Your task to perform on an android device: Open Chrome and go to the settings page Image 0: 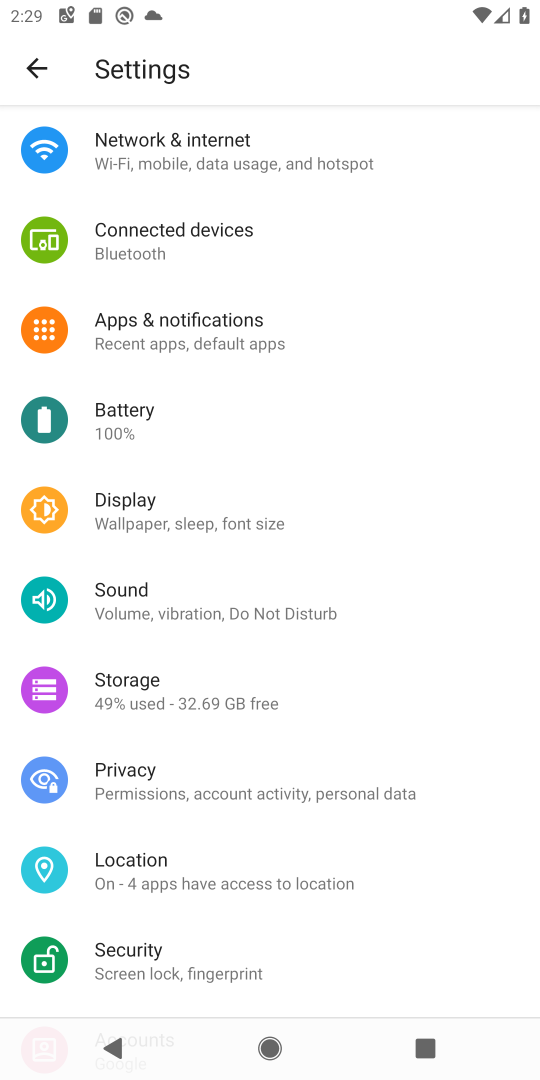
Step 0: press home button
Your task to perform on an android device: Open Chrome and go to the settings page Image 1: 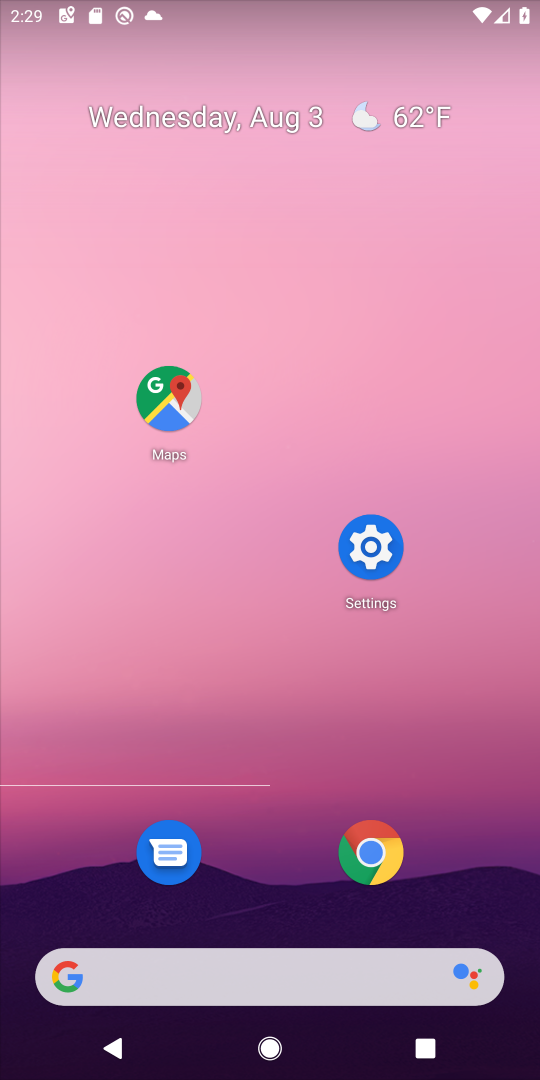
Step 1: click (365, 548)
Your task to perform on an android device: Open Chrome and go to the settings page Image 2: 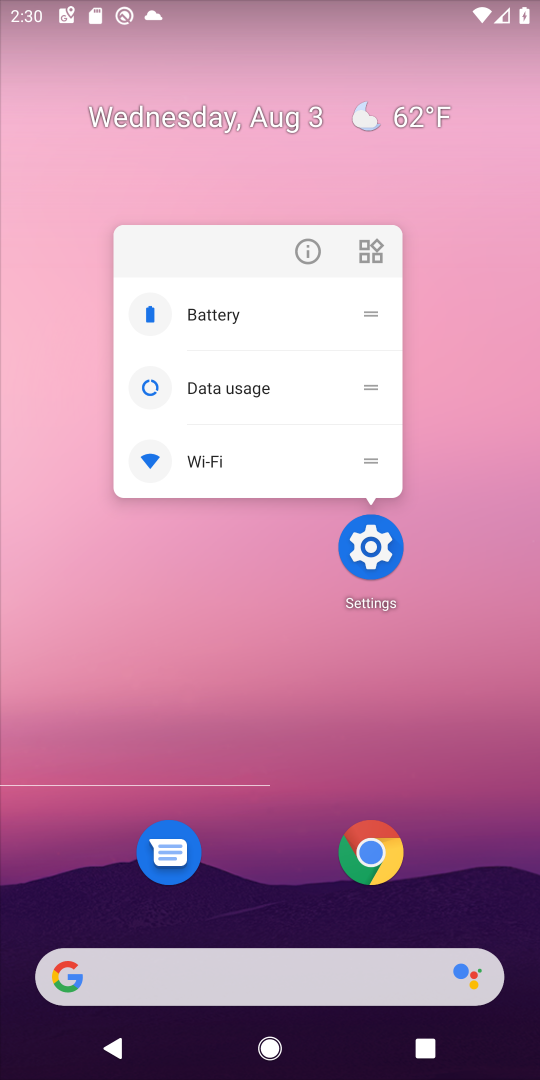
Step 2: click (365, 548)
Your task to perform on an android device: Open Chrome and go to the settings page Image 3: 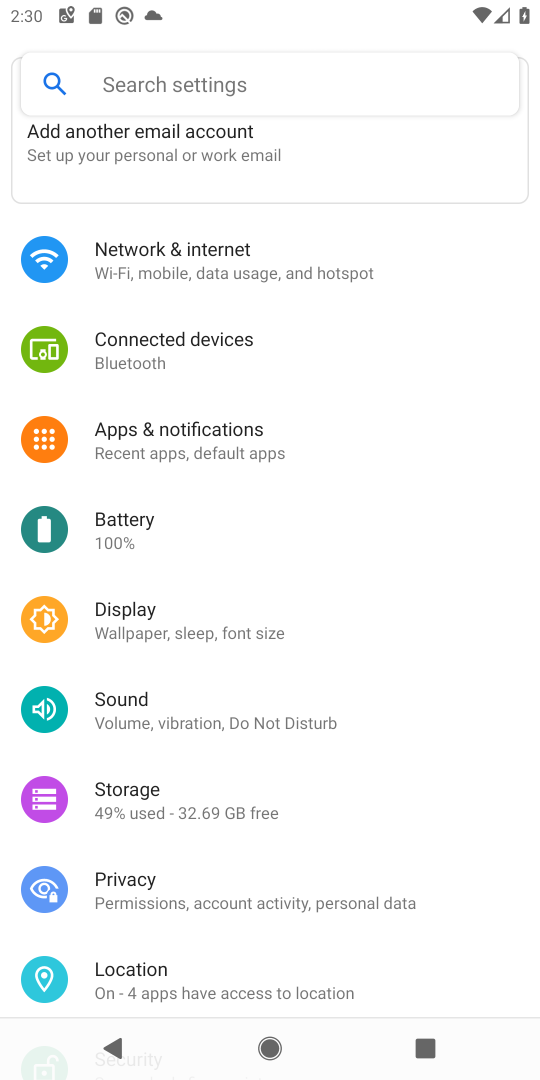
Step 3: press home button
Your task to perform on an android device: Open Chrome and go to the settings page Image 4: 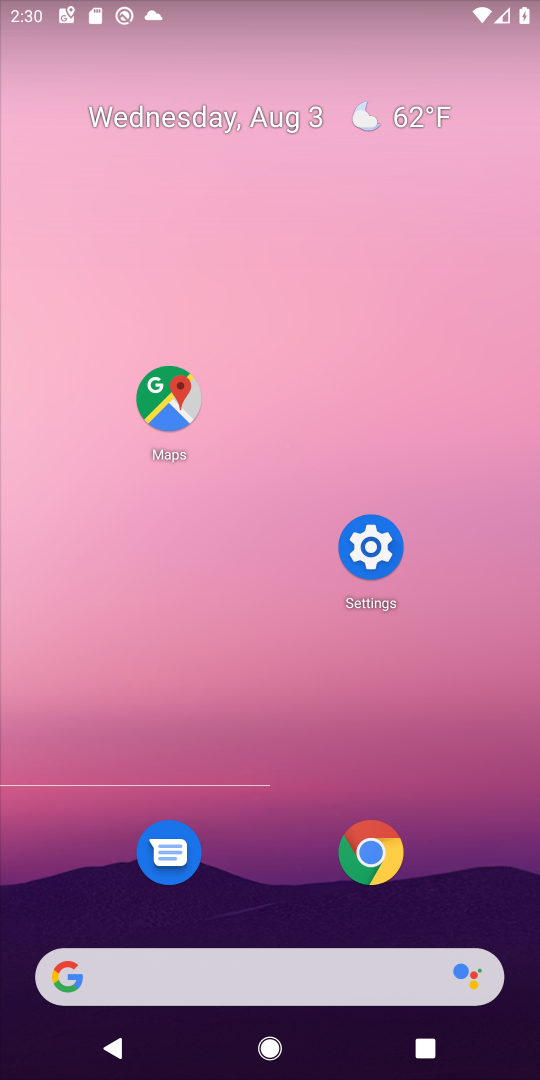
Step 4: click (365, 856)
Your task to perform on an android device: Open Chrome and go to the settings page Image 5: 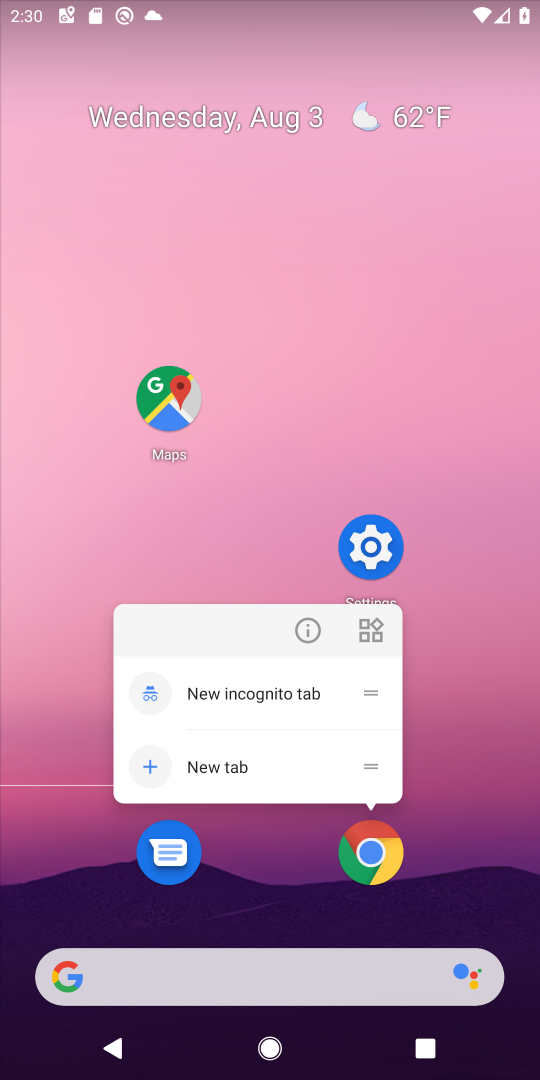
Step 5: click (365, 857)
Your task to perform on an android device: Open Chrome and go to the settings page Image 6: 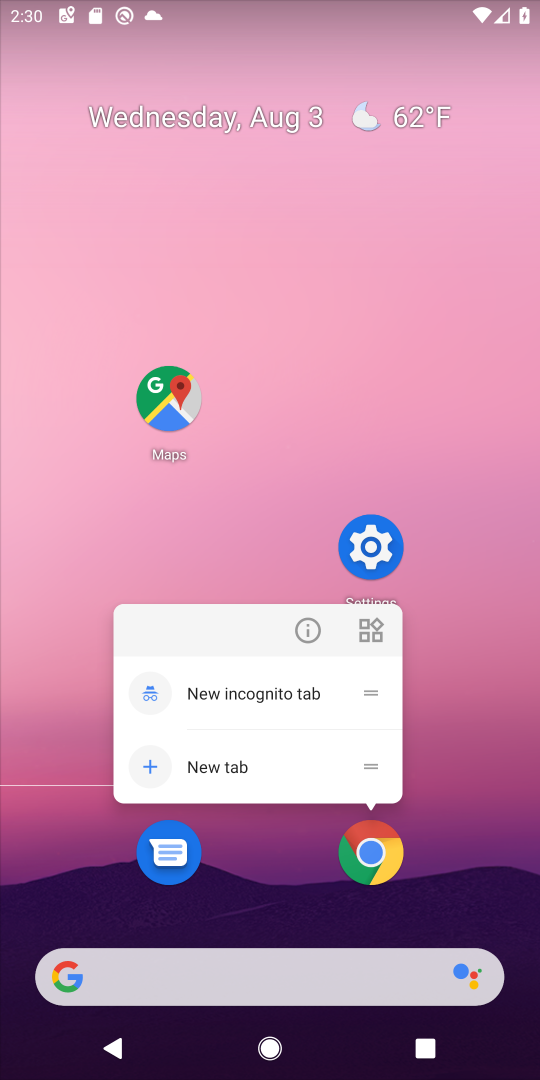
Step 6: click (365, 857)
Your task to perform on an android device: Open Chrome and go to the settings page Image 7: 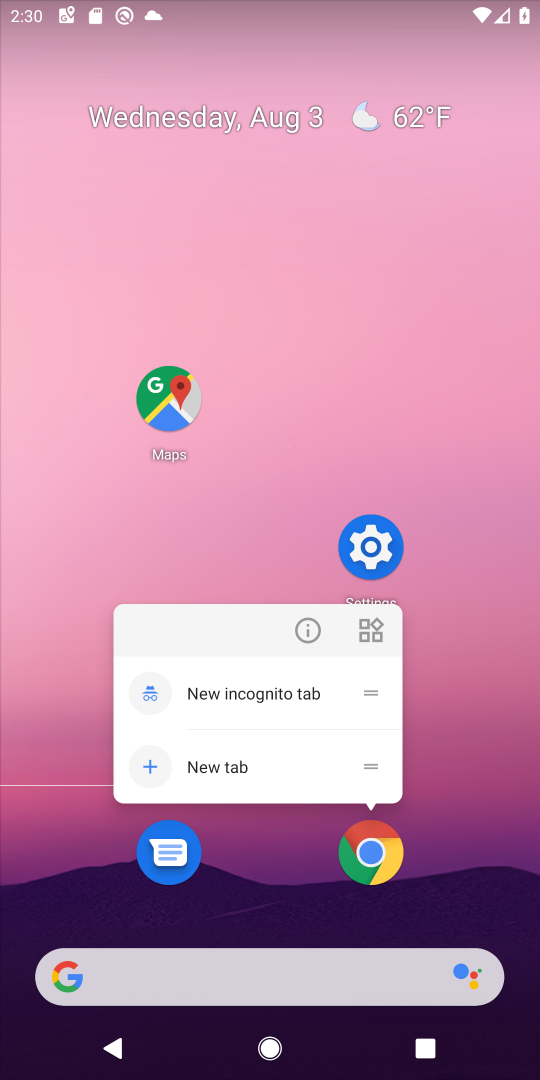
Step 7: click (379, 859)
Your task to perform on an android device: Open Chrome and go to the settings page Image 8: 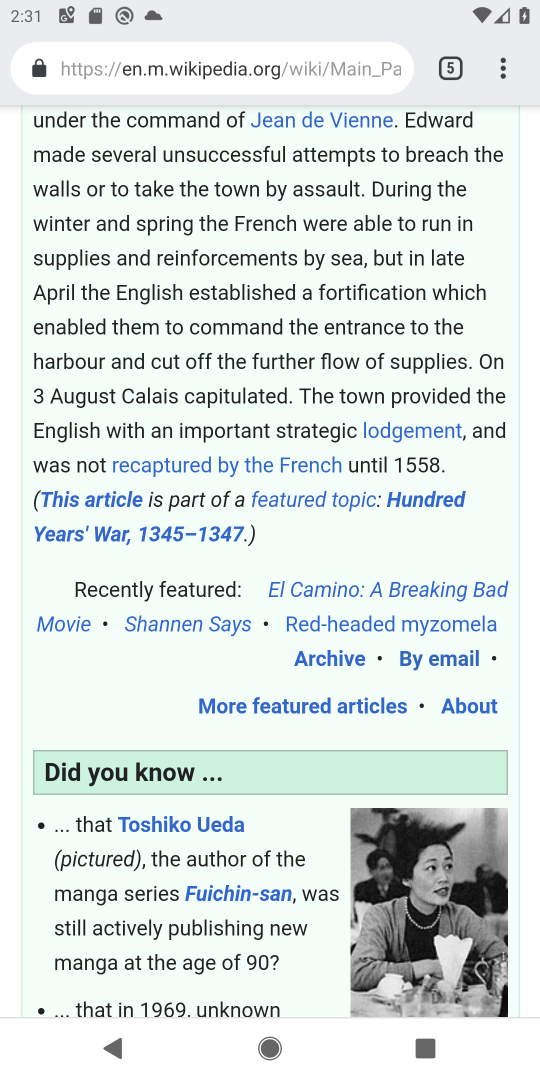
Step 8: task complete